Your task to perform on an android device: toggle priority inbox in the gmail app Image 0: 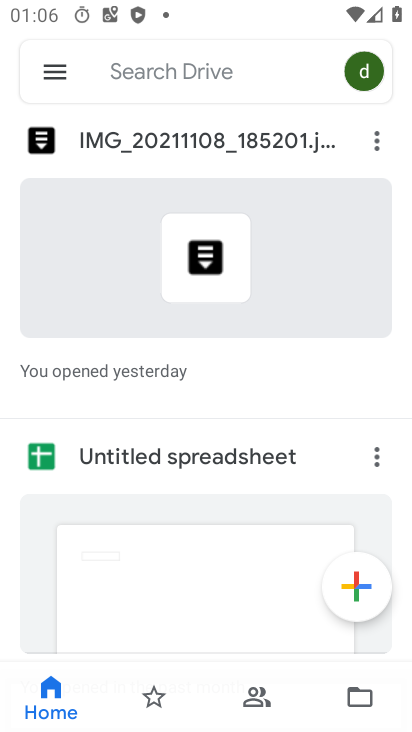
Step 0: press back button
Your task to perform on an android device: toggle priority inbox in the gmail app Image 1: 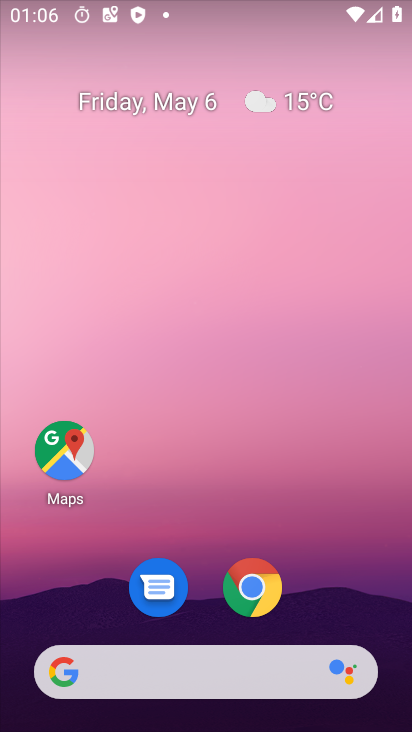
Step 1: drag from (372, 394) to (390, 245)
Your task to perform on an android device: toggle priority inbox in the gmail app Image 2: 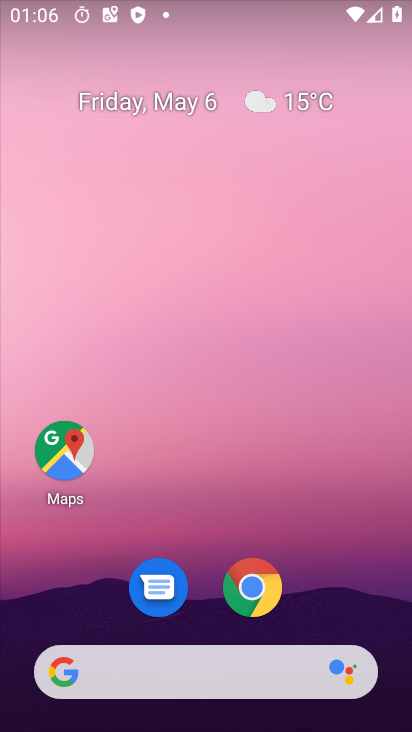
Step 2: drag from (381, 548) to (380, 272)
Your task to perform on an android device: toggle priority inbox in the gmail app Image 3: 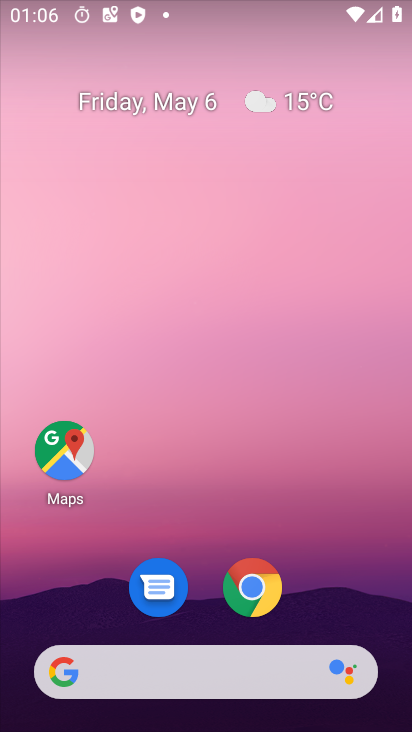
Step 3: drag from (355, 487) to (351, 292)
Your task to perform on an android device: toggle priority inbox in the gmail app Image 4: 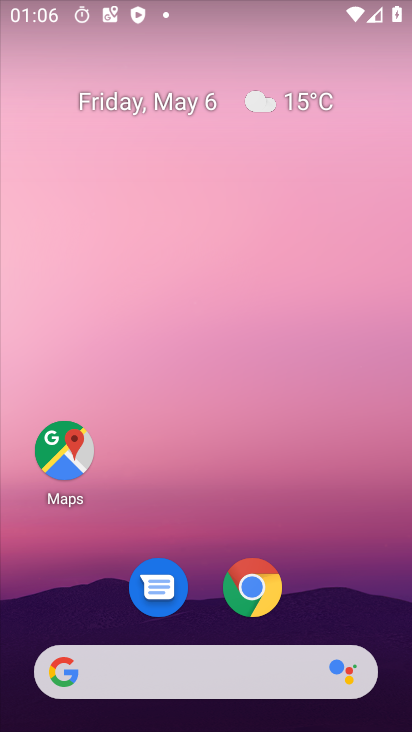
Step 4: drag from (388, 685) to (391, 310)
Your task to perform on an android device: toggle priority inbox in the gmail app Image 5: 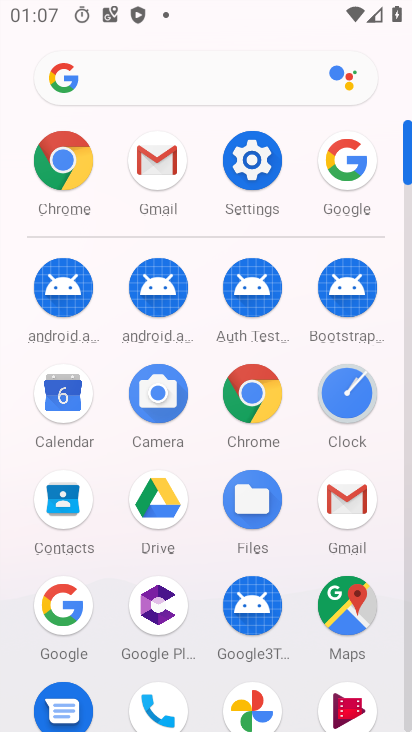
Step 5: click (328, 514)
Your task to perform on an android device: toggle priority inbox in the gmail app Image 6: 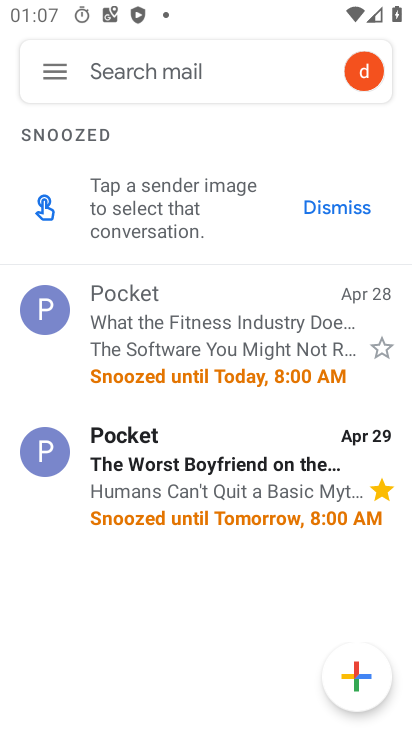
Step 6: click (43, 70)
Your task to perform on an android device: toggle priority inbox in the gmail app Image 7: 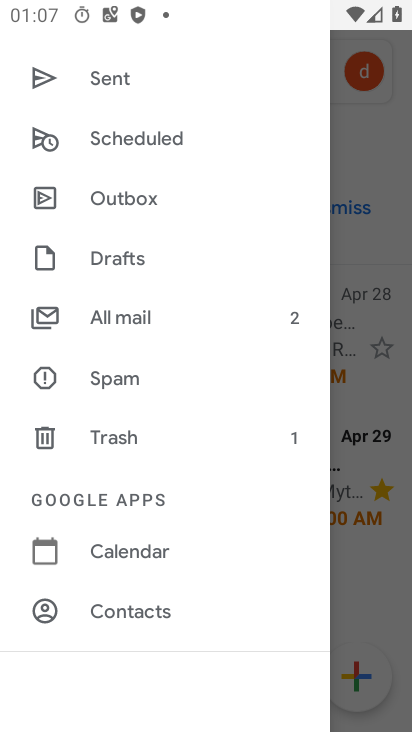
Step 7: drag from (235, 609) to (235, 317)
Your task to perform on an android device: toggle priority inbox in the gmail app Image 8: 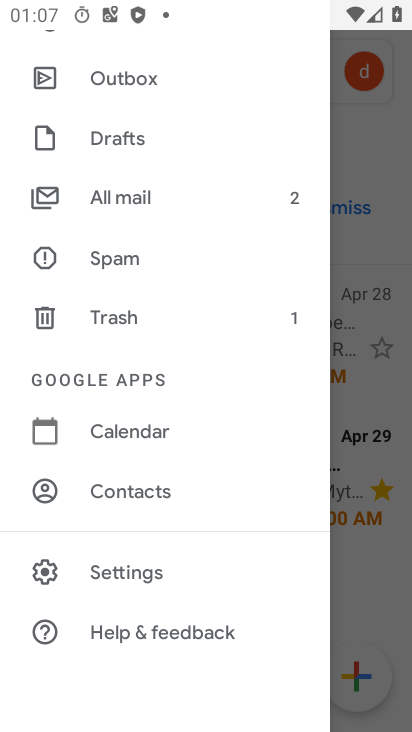
Step 8: click (96, 577)
Your task to perform on an android device: toggle priority inbox in the gmail app Image 9: 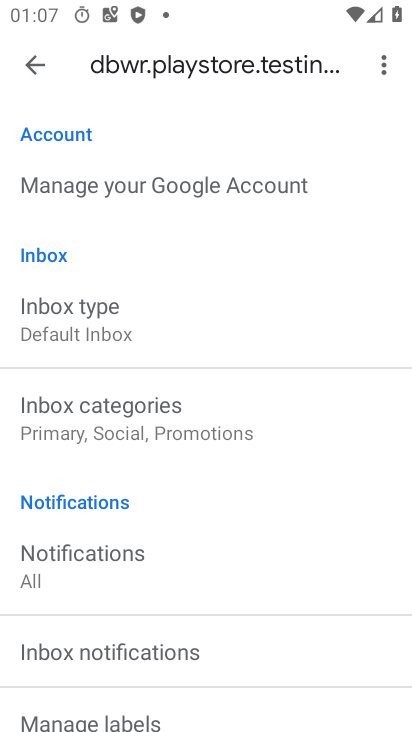
Step 9: click (76, 323)
Your task to perform on an android device: toggle priority inbox in the gmail app Image 10: 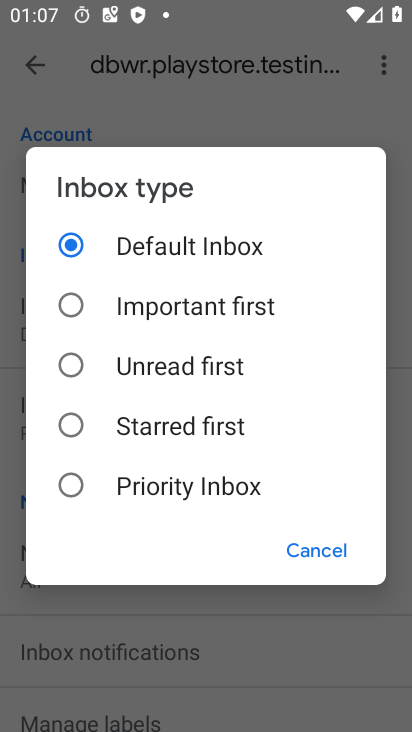
Step 10: click (68, 483)
Your task to perform on an android device: toggle priority inbox in the gmail app Image 11: 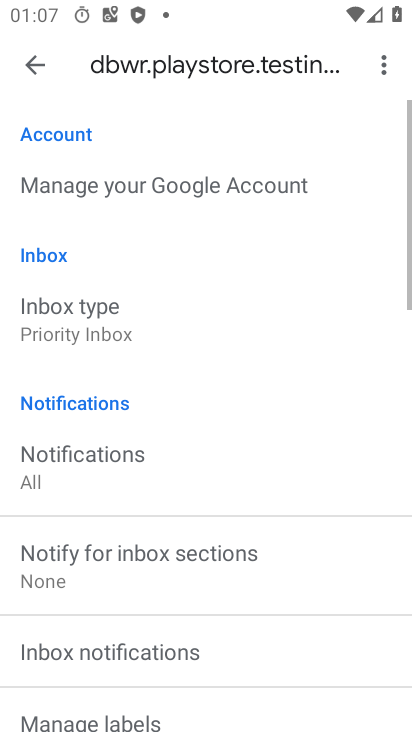
Step 11: task complete